Your task to perform on an android device: Search for seafood restaurants on Google Maps Image 0: 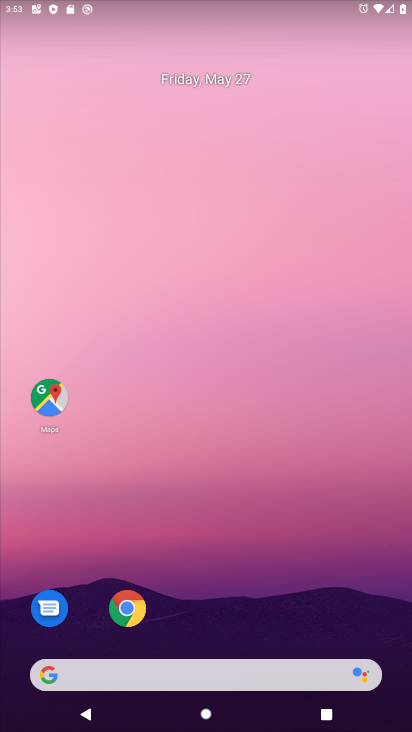
Step 0: click (55, 398)
Your task to perform on an android device: Search for seafood restaurants on Google Maps Image 1: 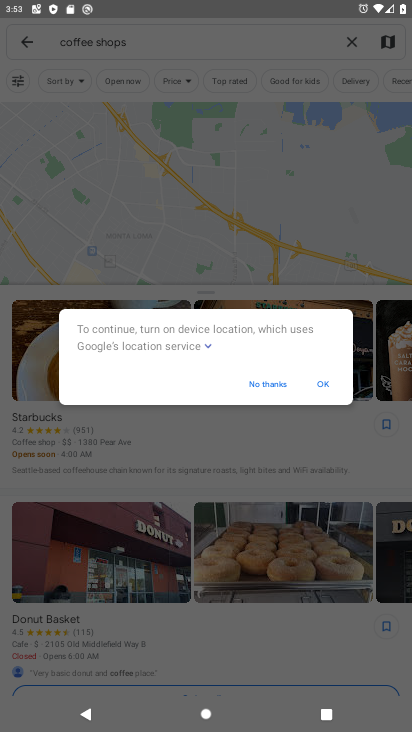
Step 1: click (314, 388)
Your task to perform on an android device: Search for seafood restaurants on Google Maps Image 2: 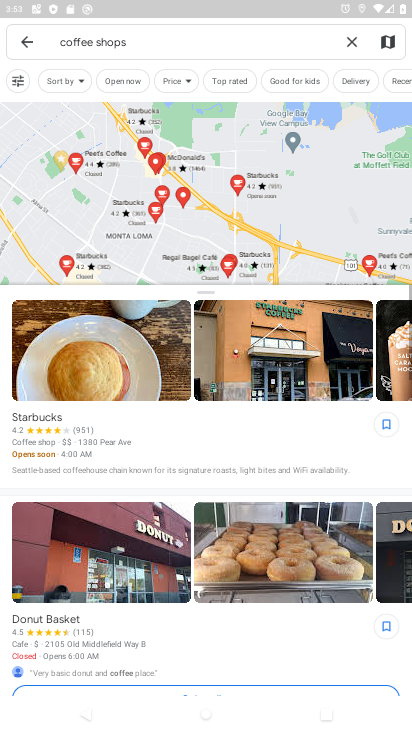
Step 2: click (351, 38)
Your task to perform on an android device: Search for seafood restaurants on Google Maps Image 3: 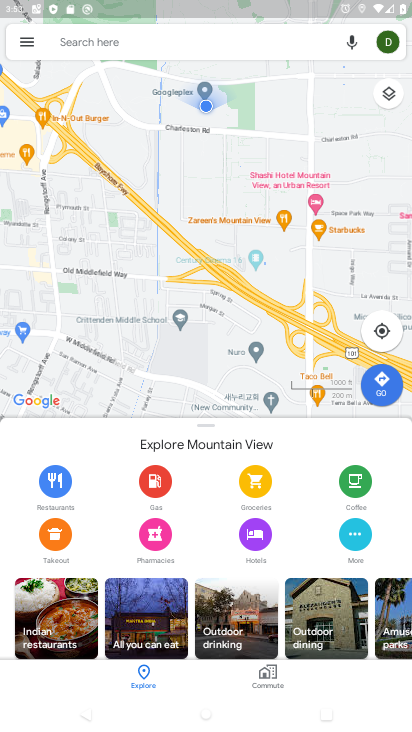
Step 3: click (114, 41)
Your task to perform on an android device: Search for seafood restaurants on Google Maps Image 4: 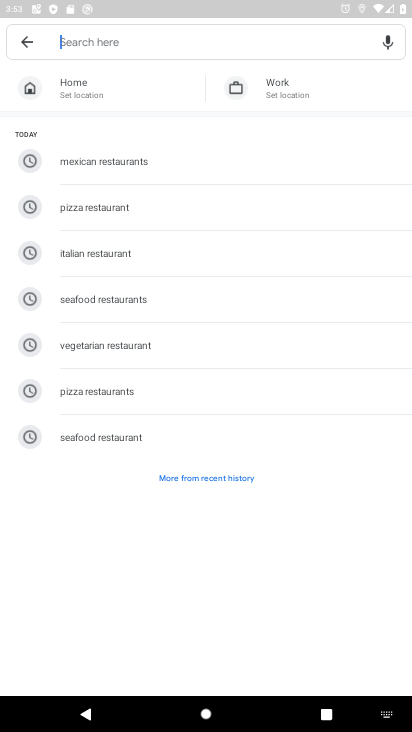
Step 4: click (106, 295)
Your task to perform on an android device: Search for seafood restaurants on Google Maps Image 5: 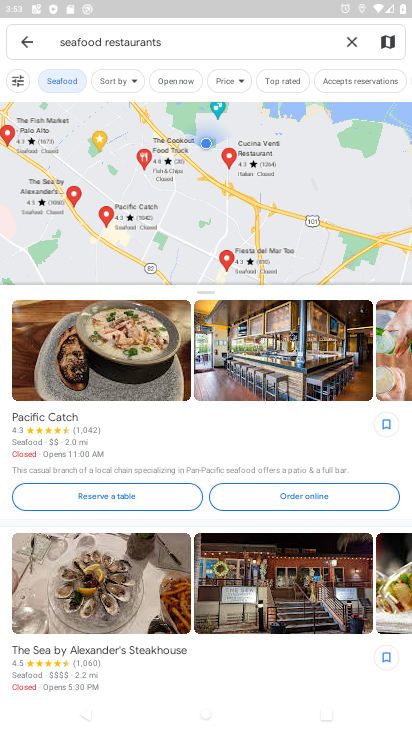
Step 5: task complete